Your task to perform on an android device: change the clock display to analog Image 0: 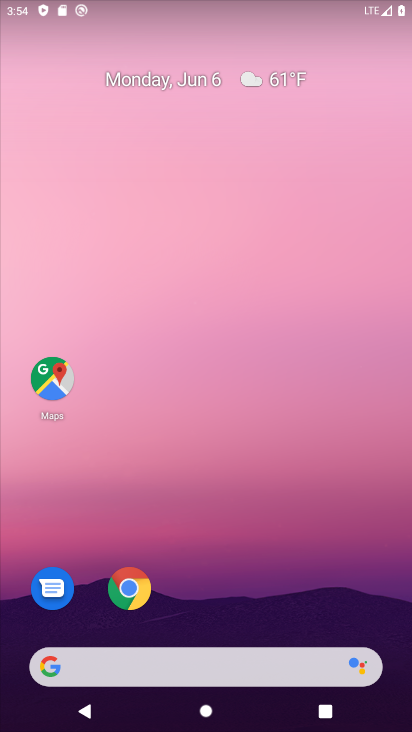
Step 0: drag from (204, 680) to (114, 147)
Your task to perform on an android device: change the clock display to analog Image 1: 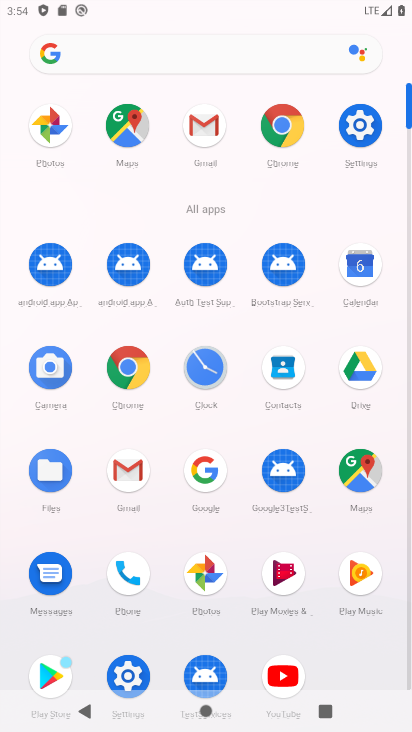
Step 1: click (195, 358)
Your task to perform on an android device: change the clock display to analog Image 2: 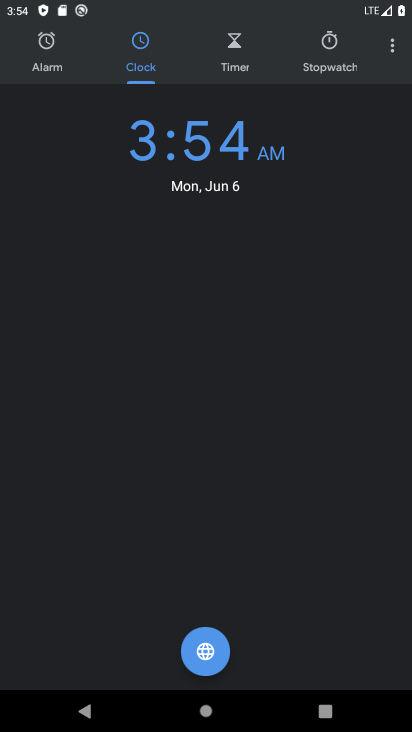
Step 2: click (393, 50)
Your task to perform on an android device: change the clock display to analog Image 3: 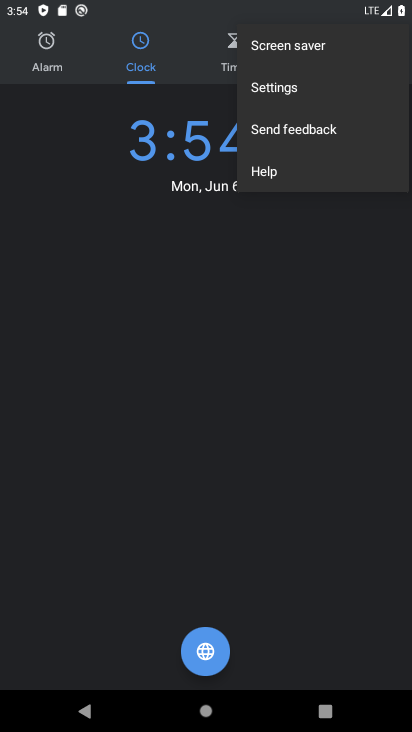
Step 3: click (285, 90)
Your task to perform on an android device: change the clock display to analog Image 4: 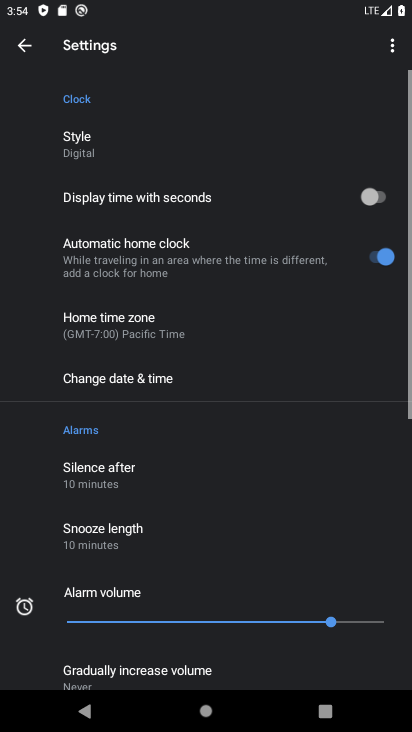
Step 4: click (118, 149)
Your task to perform on an android device: change the clock display to analog Image 5: 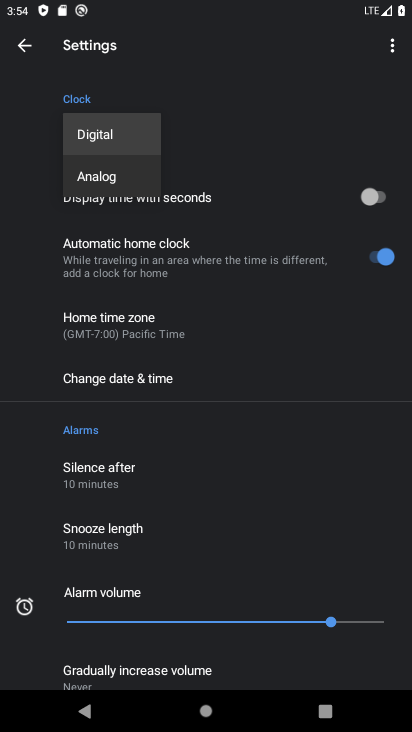
Step 5: click (113, 180)
Your task to perform on an android device: change the clock display to analog Image 6: 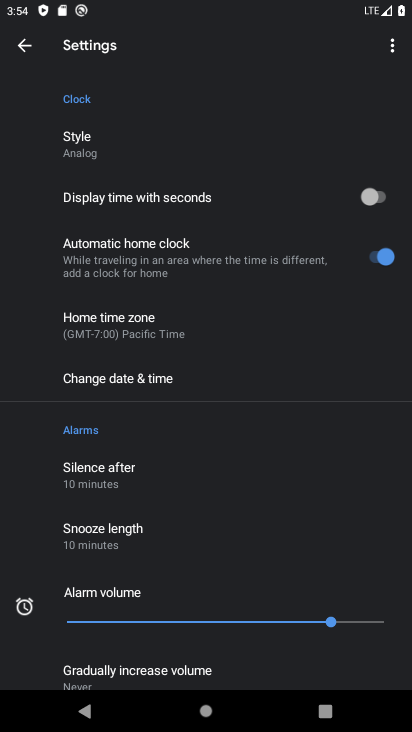
Step 6: task complete